Your task to perform on an android device: set the stopwatch Image 0: 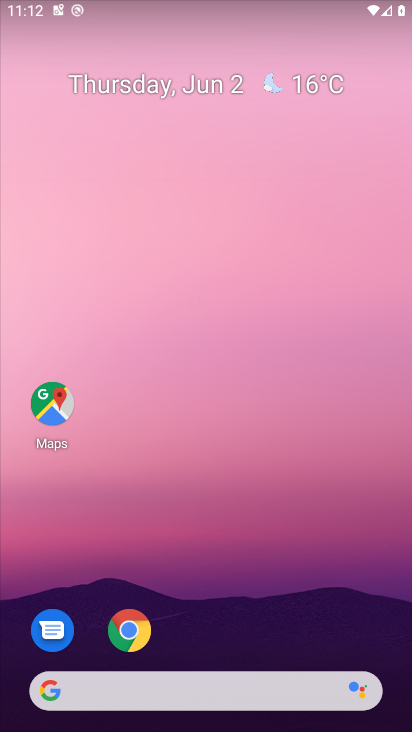
Step 0: drag from (247, 635) to (302, 119)
Your task to perform on an android device: set the stopwatch Image 1: 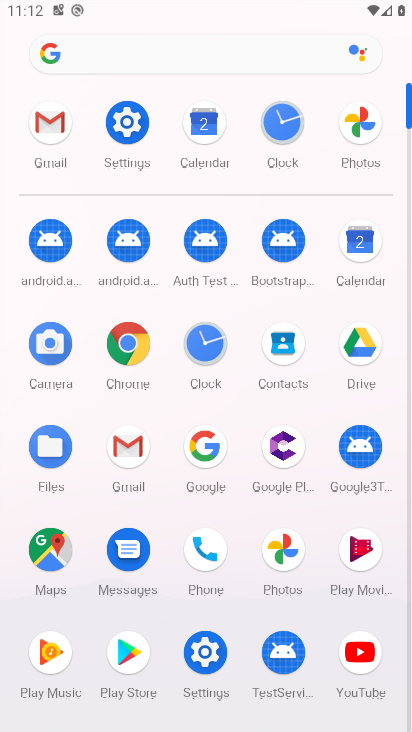
Step 1: click (207, 346)
Your task to perform on an android device: set the stopwatch Image 2: 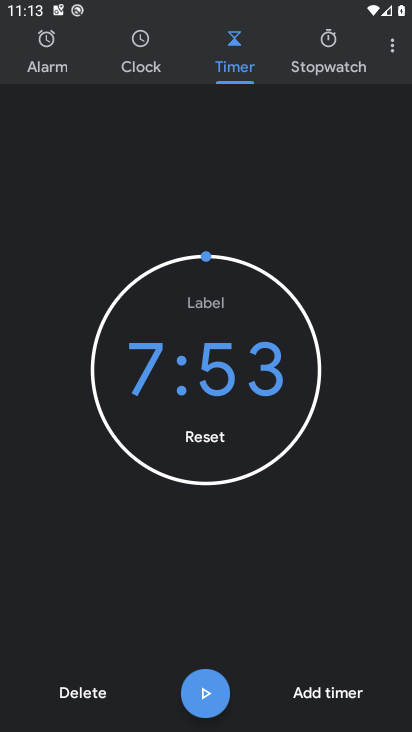
Step 2: click (95, 691)
Your task to perform on an android device: set the stopwatch Image 3: 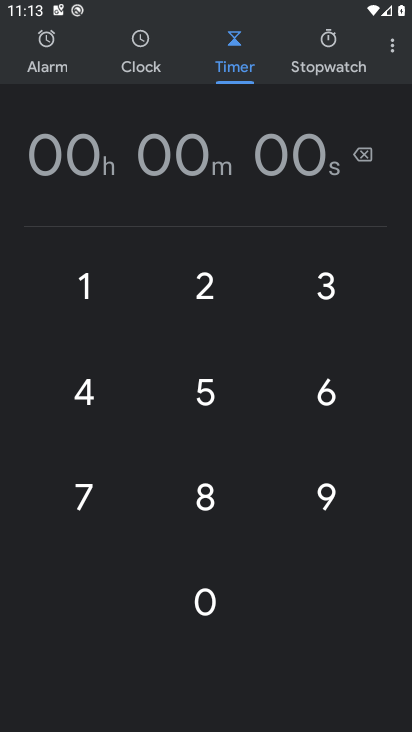
Step 3: click (331, 53)
Your task to perform on an android device: set the stopwatch Image 4: 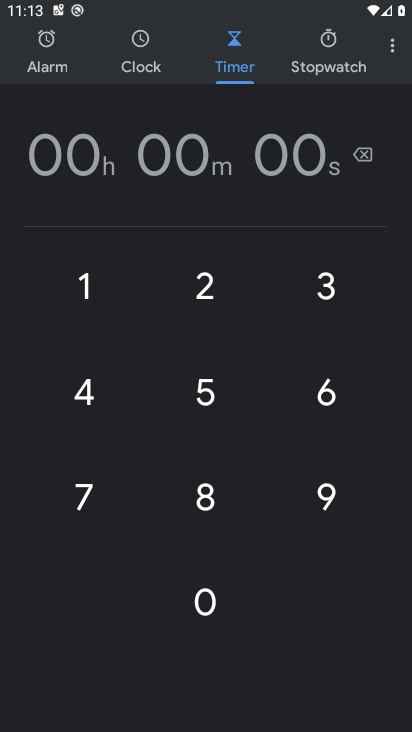
Step 4: click (341, 73)
Your task to perform on an android device: set the stopwatch Image 5: 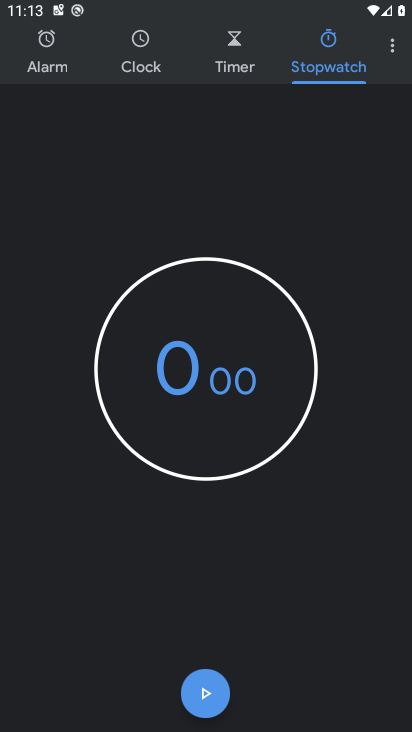
Step 5: click (202, 677)
Your task to perform on an android device: set the stopwatch Image 6: 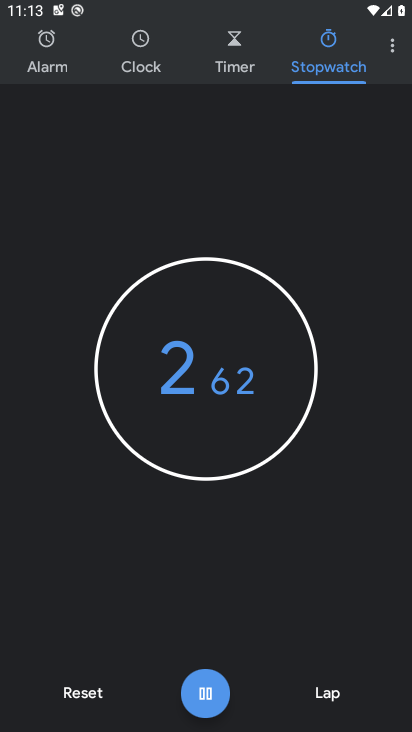
Step 6: task complete